Your task to perform on an android device: turn off picture-in-picture Image 0: 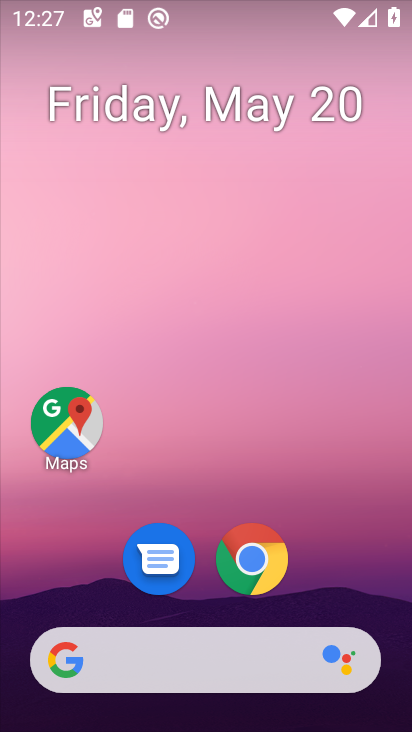
Step 0: drag from (368, 586) to (286, 169)
Your task to perform on an android device: turn off picture-in-picture Image 1: 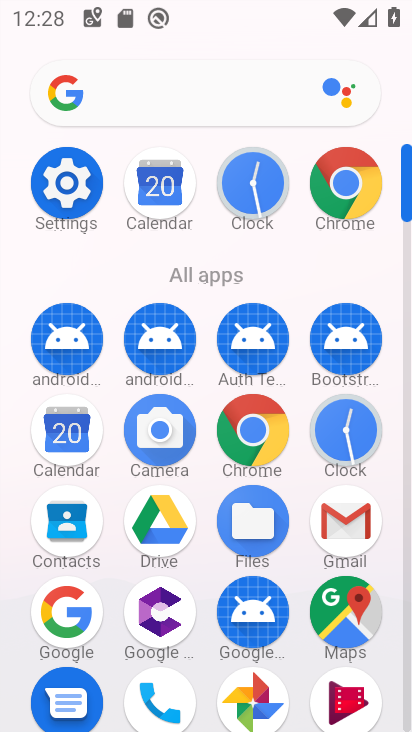
Step 1: click (335, 170)
Your task to perform on an android device: turn off picture-in-picture Image 2: 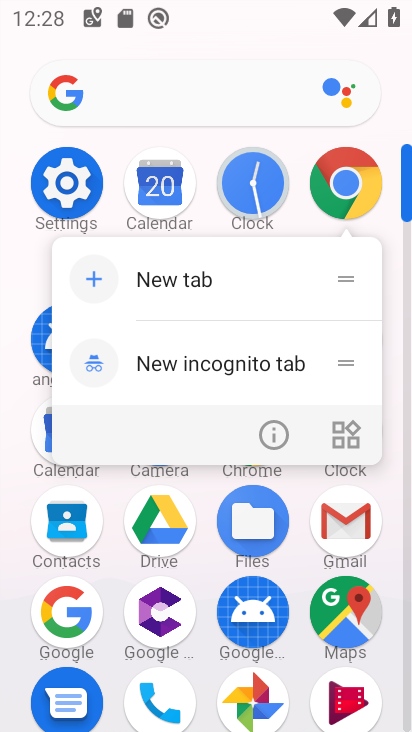
Step 2: click (281, 431)
Your task to perform on an android device: turn off picture-in-picture Image 3: 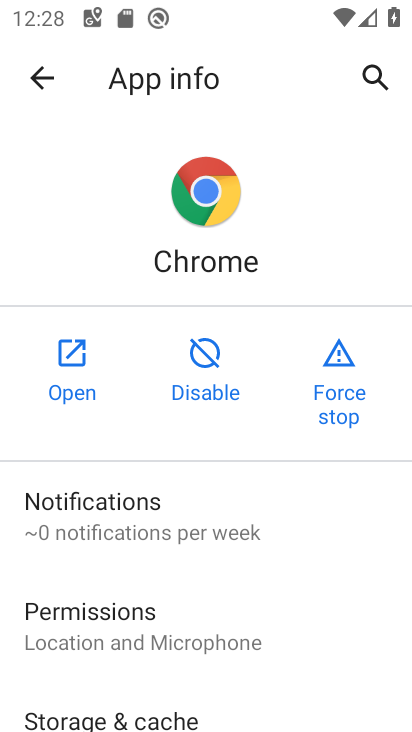
Step 3: drag from (272, 676) to (231, 270)
Your task to perform on an android device: turn off picture-in-picture Image 4: 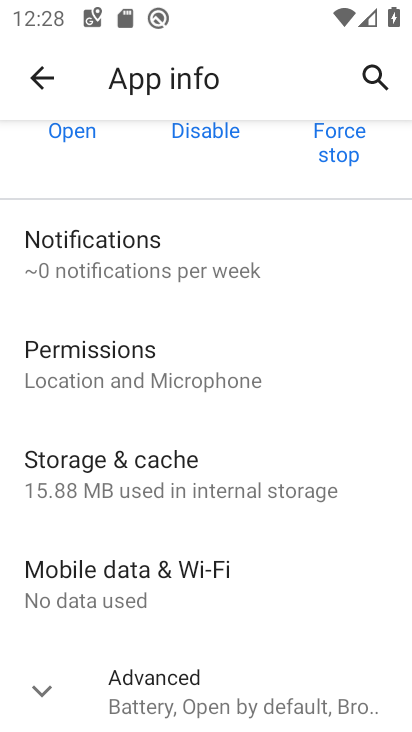
Step 4: click (266, 681)
Your task to perform on an android device: turn off picture-in-picture Image 5: 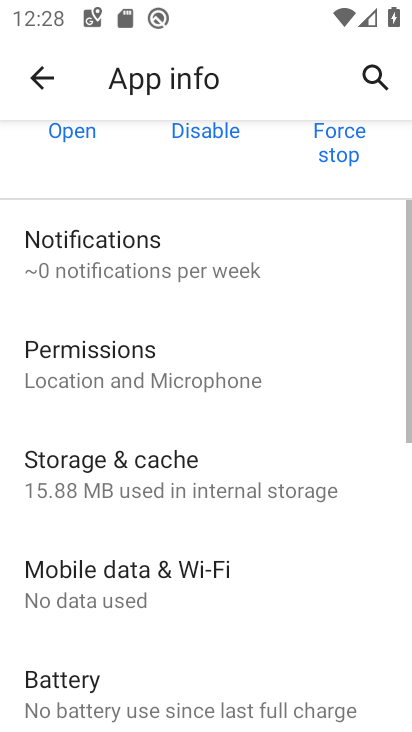
Step 5: drag from (265, 667) to (148, 228)
Your task to perform on an android device: turn off picture-in-picture Image 6: 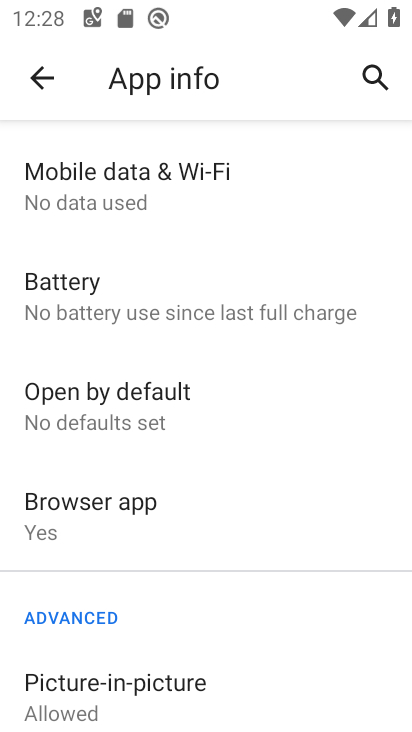
Step 6: click (213, 677)
Your task to perform on an android device: turn off picture-in-picture Image 7: 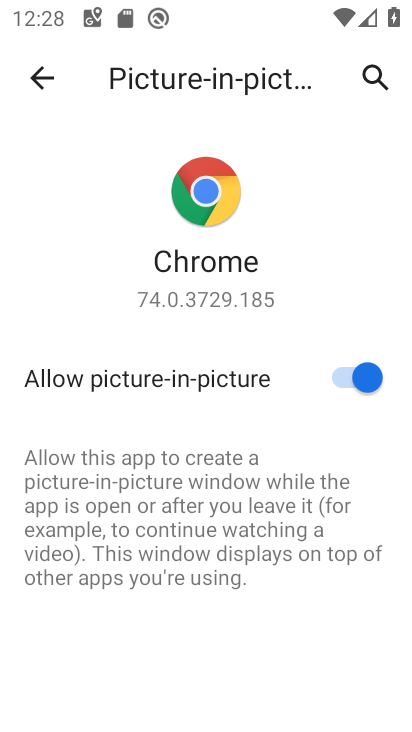
Step 7: click (355, 372)
Your task to perform on an android device: turn off picture-in-picture Image 8: 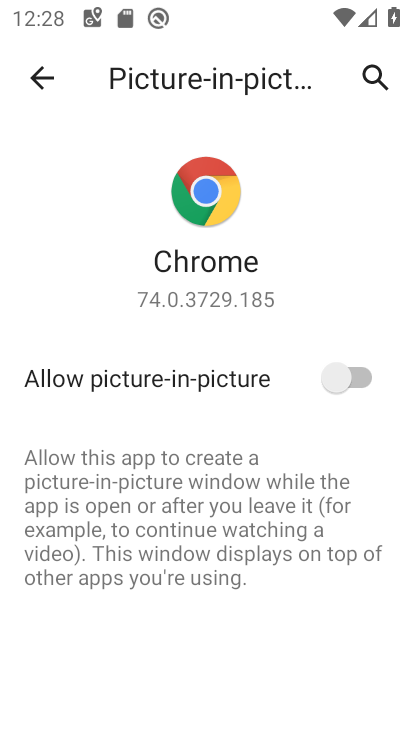
Step 8: task complete